Your task to perform on an android device: all mails in gmail Image 0: 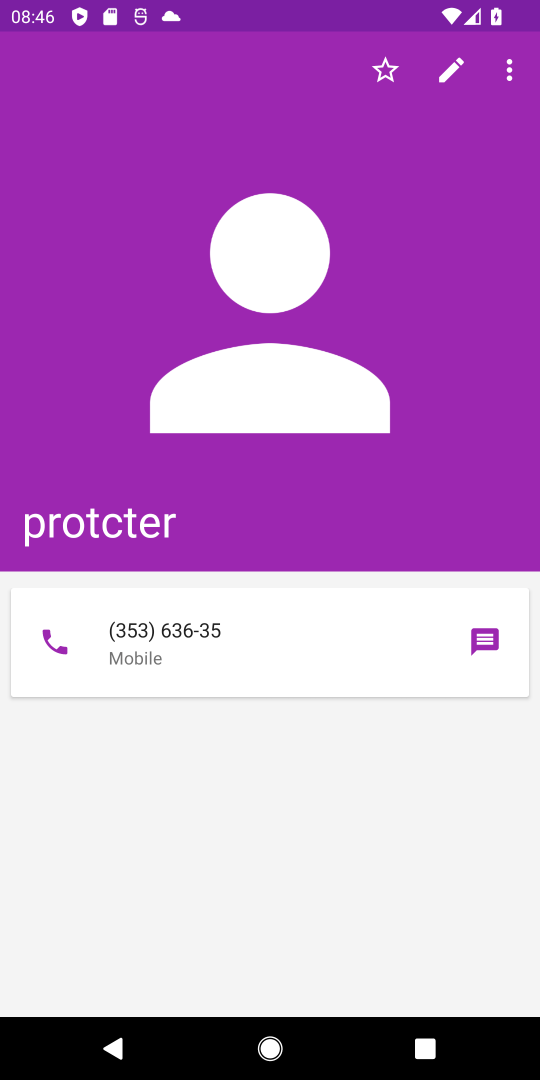
Step 0: press home button
Your task to perform on an android device: all mails in gmail Image 1: 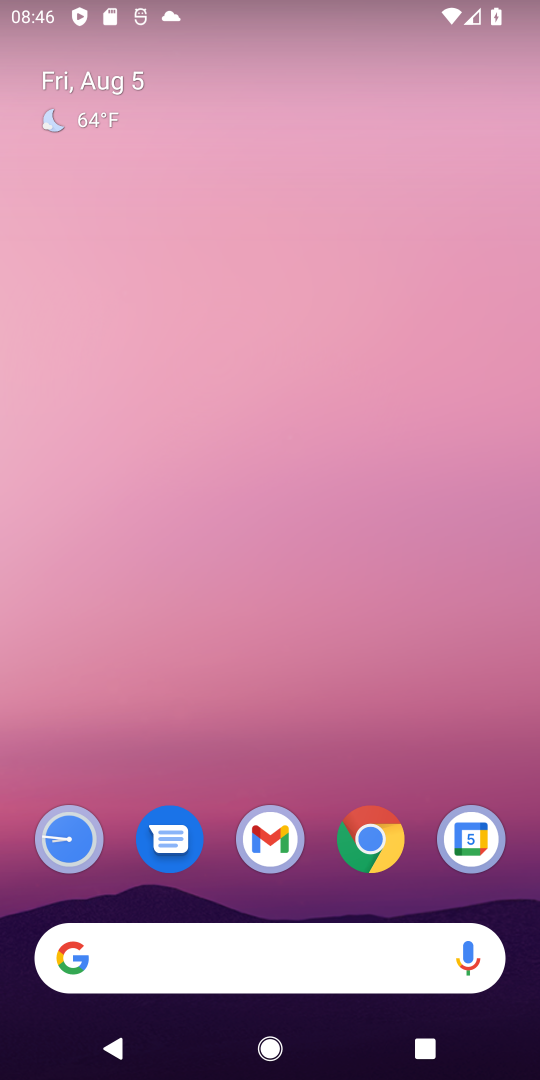
Step 1: drag from (313, 891) to (328, 70)
Your task to perform on an android device: all mails in gmail Image 2: 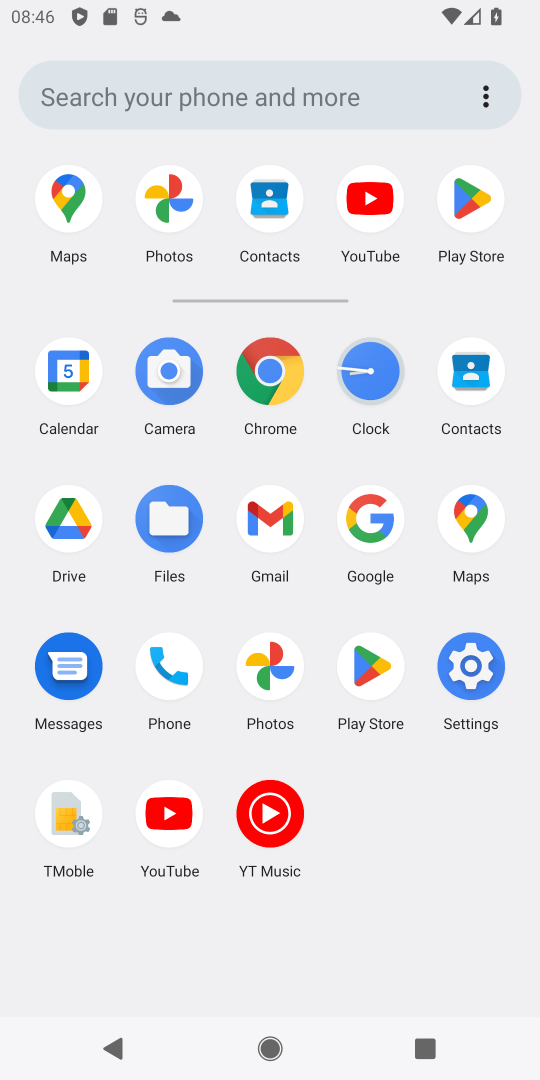
Step 2: click (276, 511)
Your task to perform on an android device: all mails in gmail Image 3: 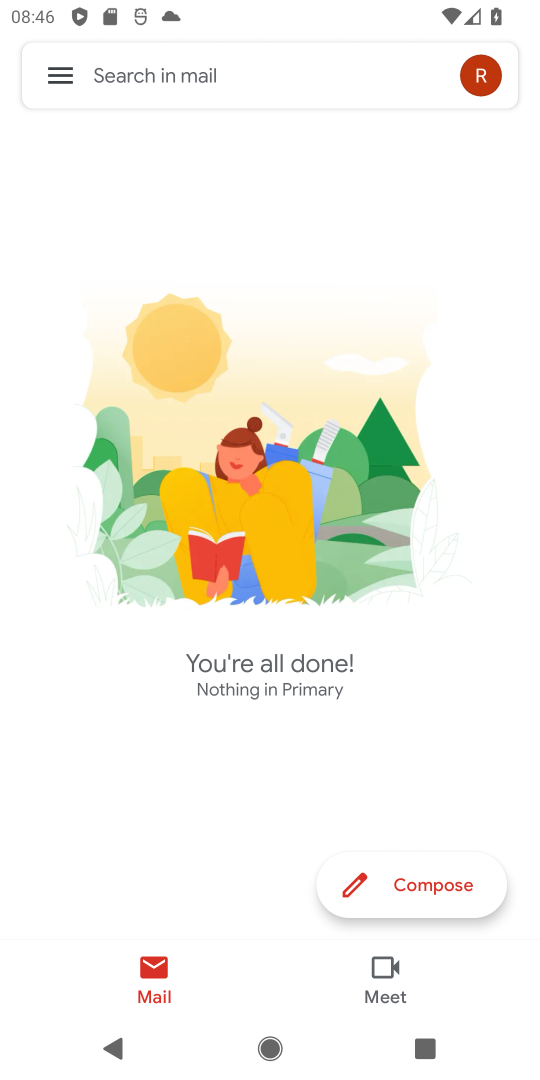
Step 3: click (49, 66)
Your task to perform on an android device: all mails in gmail Image 4: 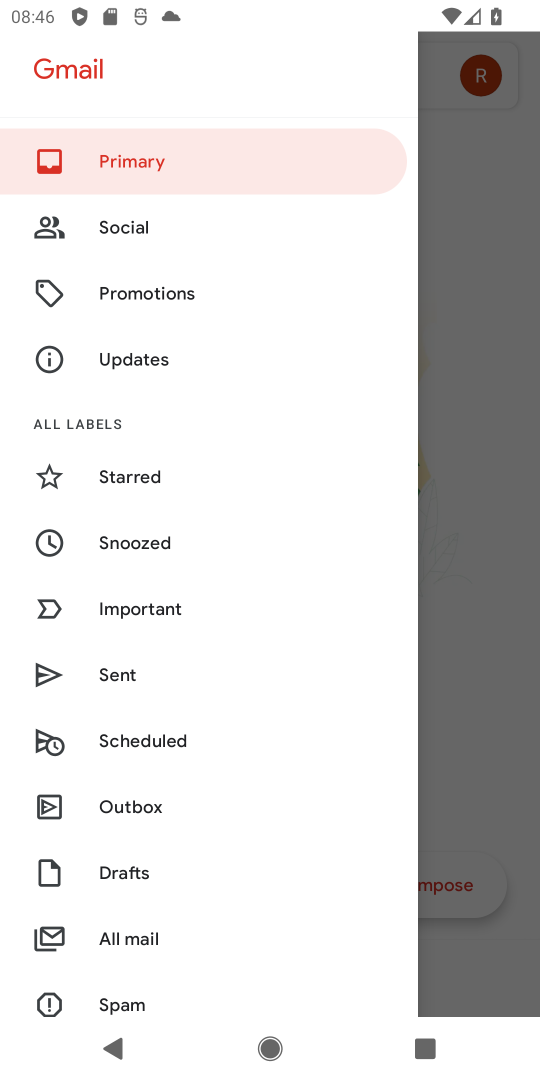
Step 4: drag from (125, 829) to (118, 528)
Your task to perform on an android device: all mails in gmail Image 5: 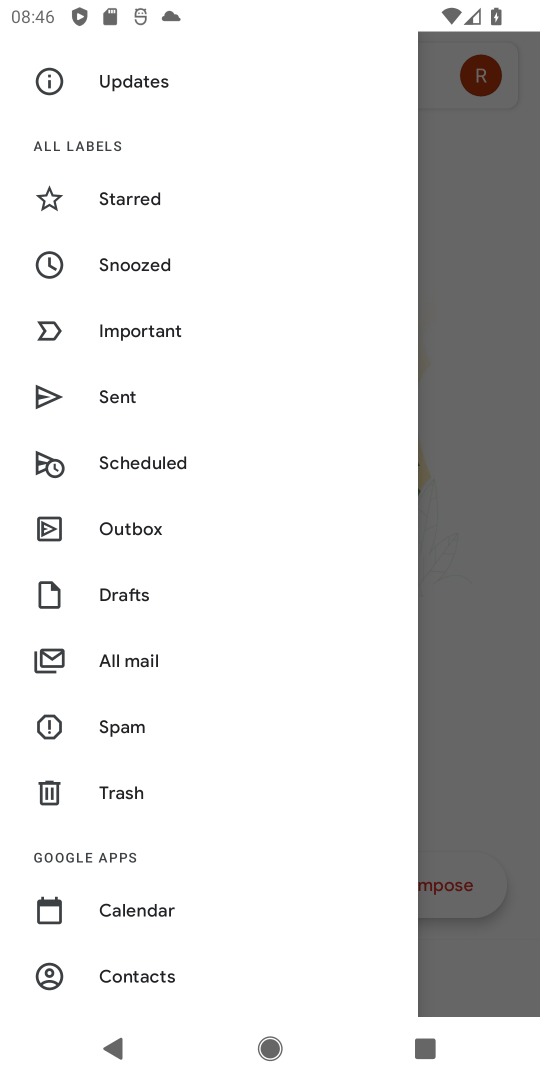
Step 5: click (134, 660)
Your task to perform on an android device: all mails in gmail Image 6: 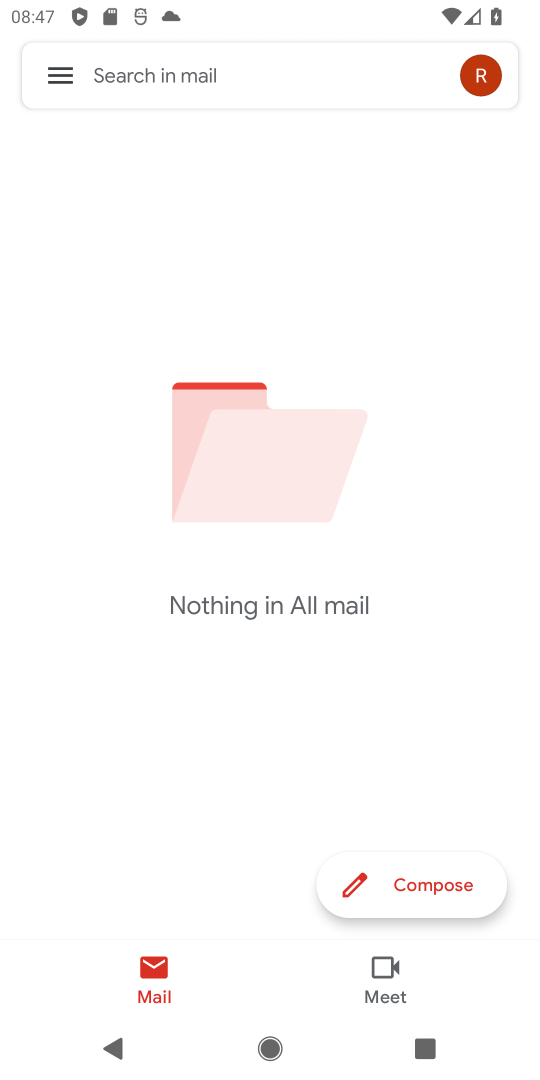
Step 6: task complete